Your task to perform on an android device: Show me recent news Image 0: 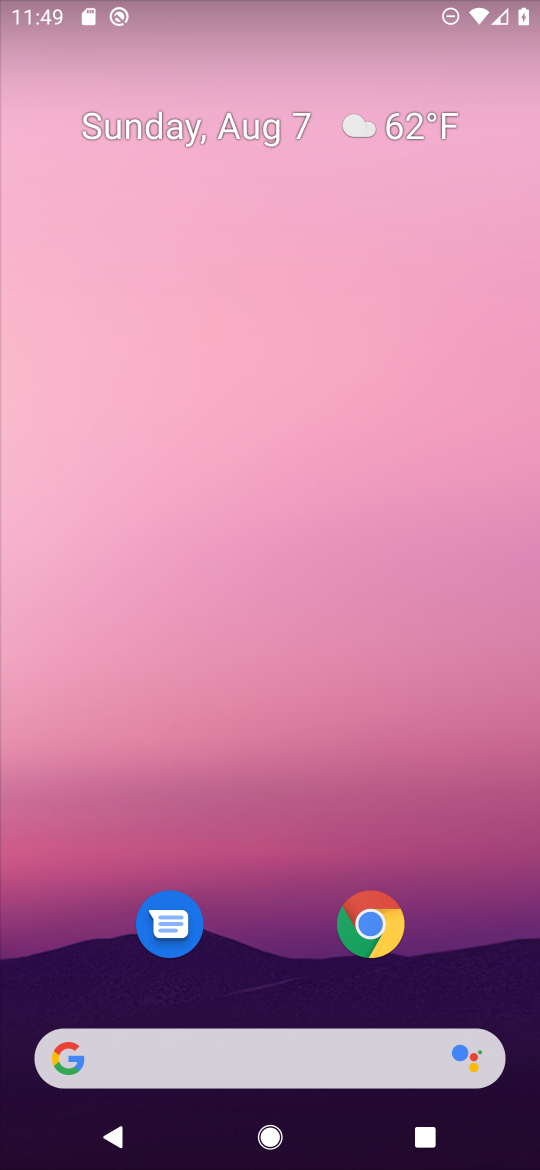
Step 0: drag from (221, 1025) to (232, 234)
Your task to perform on an android device: Show me recent news Image 1: 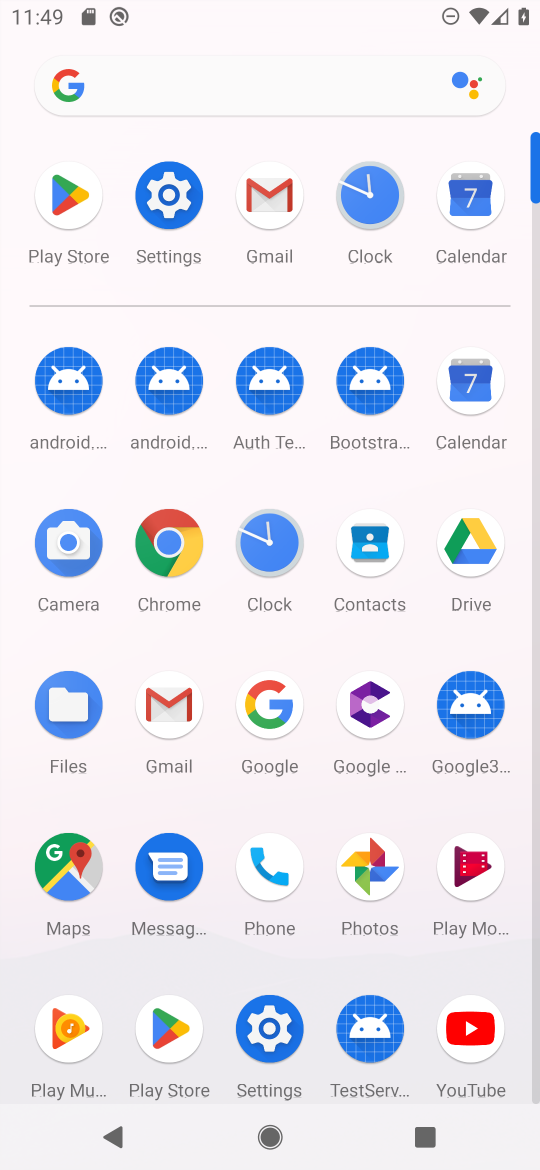
Step 1: click (243, 705)
Your task to perform on an android device: Show me recent news Image 2: 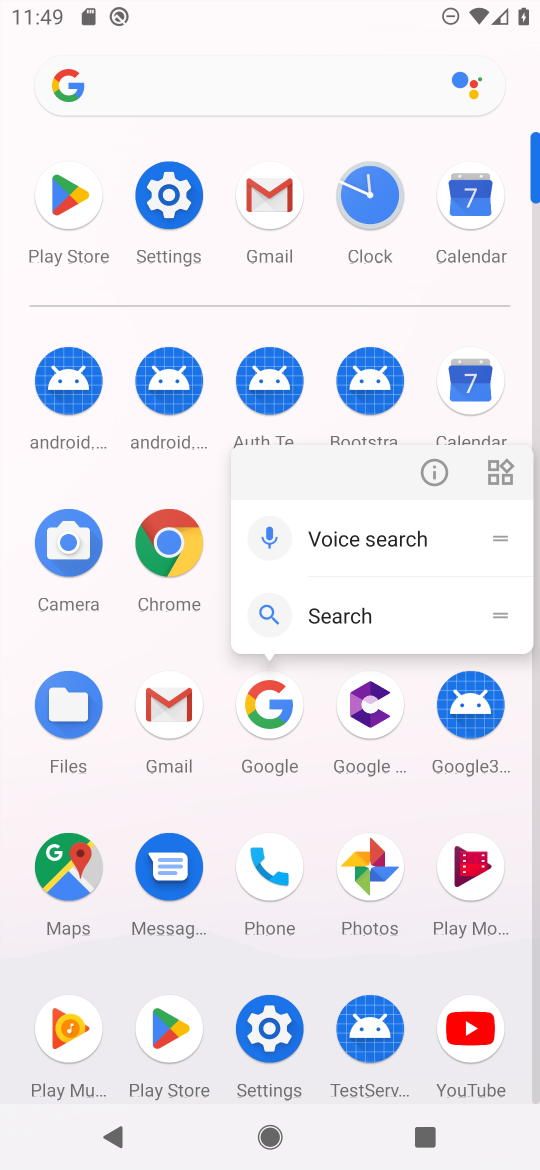
Step 2: click (268, 708)
Your task to perform on an android device: Show me recent news Image 3: 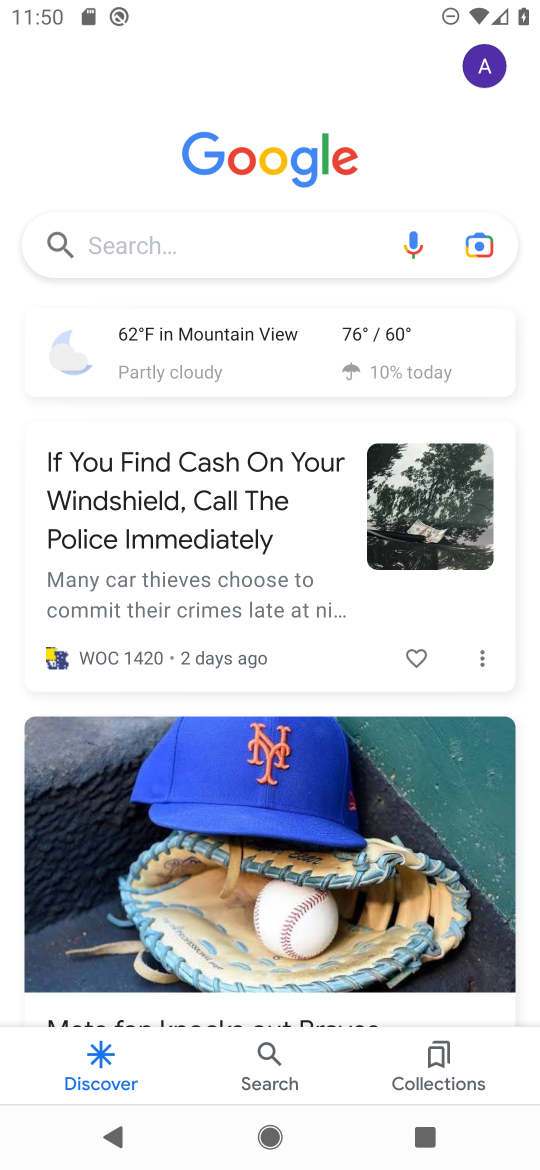
Step 3: click (152, 246)
Your task to perform on an android device: Show me recent news Image 4: 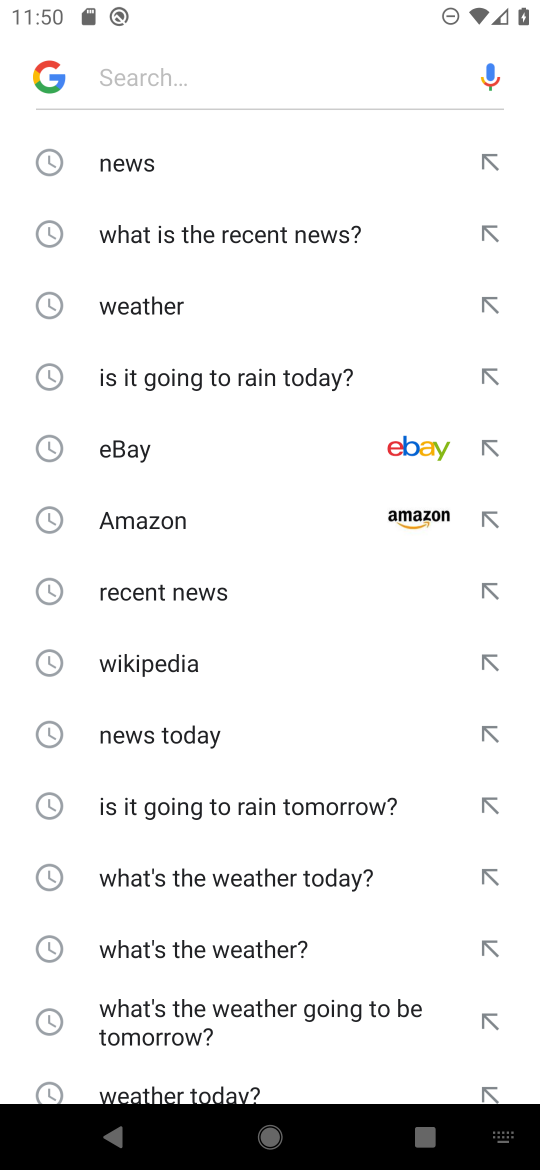
Step 4: click (138, 154)
Your task to perform on an android device: Show me recent news Image 5: 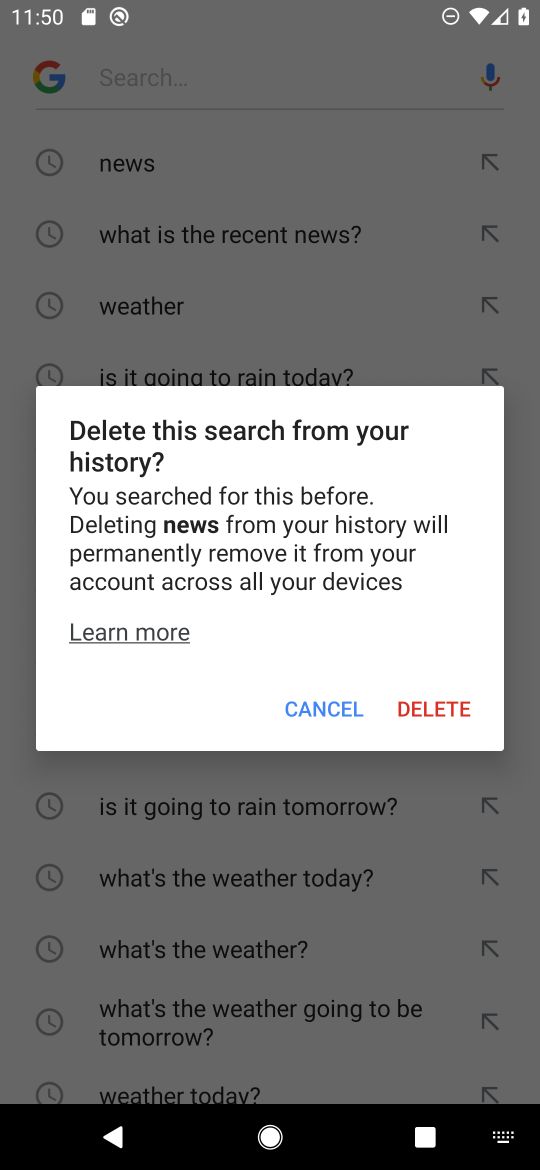
Step 5: click (346, 712)
Your task to perform on an android device: Show me recent news Image 6: 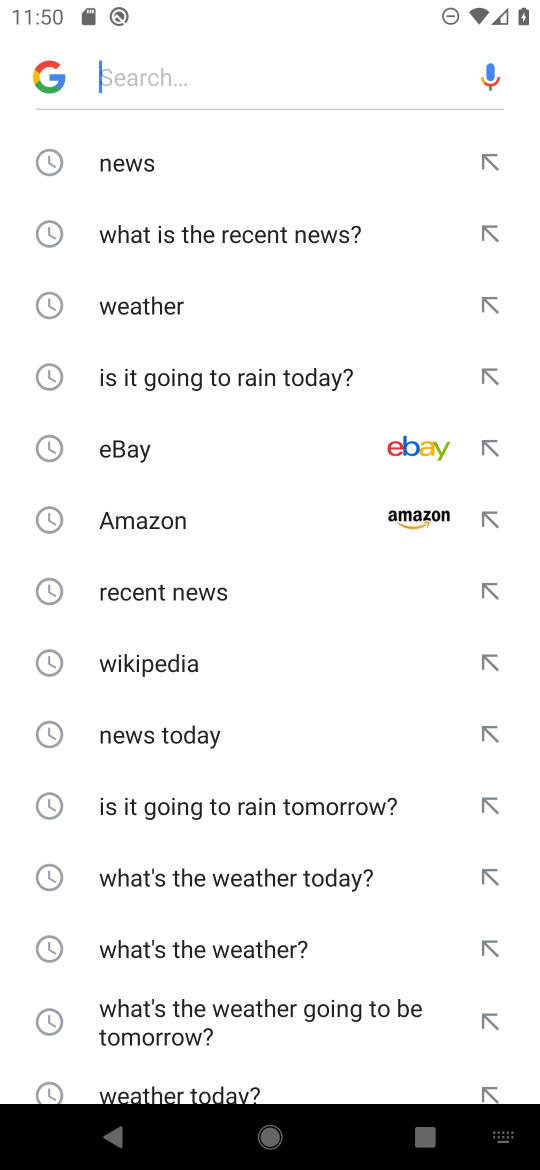
Step 6: click (136, 155)
Your task to perform on an android device: Show me recent news Image 7: 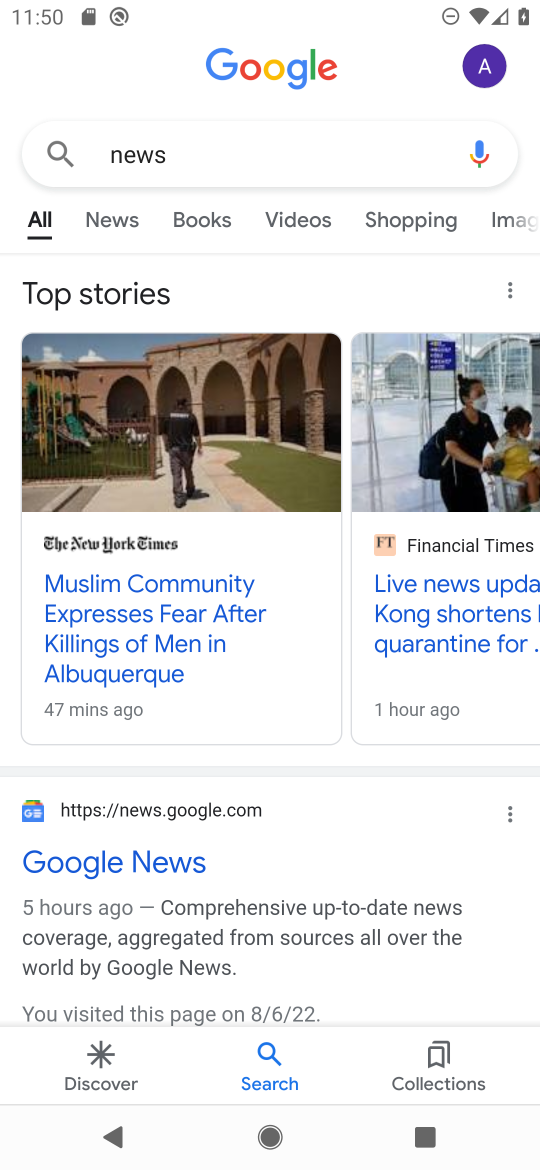
Step 7: task complete